Your task to perform on an android device: Open accessibility settings Image 0: 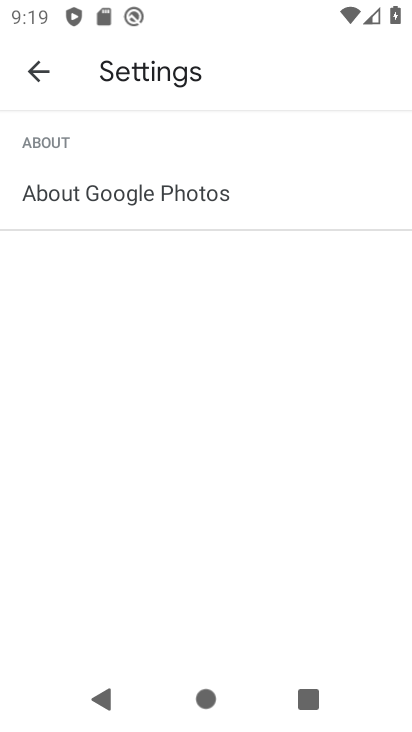
Step 0: press home button
Your task to perform on an android device: Open accessibility settings Image 1: 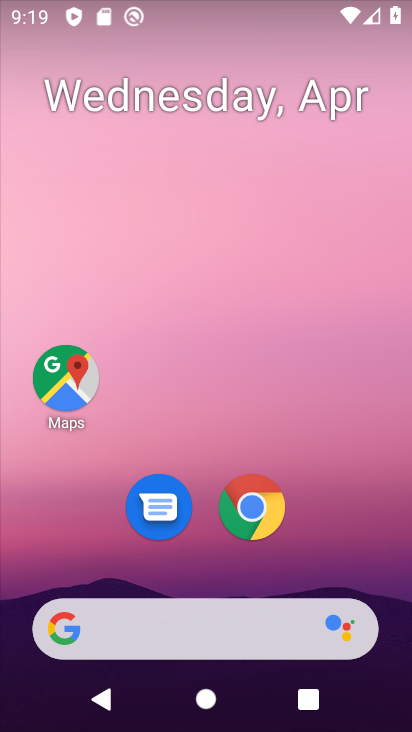
Step 1: drag from (314, 566) to (265, 136)
Your task to perform on an android device: Open accessibility settings Image 2: 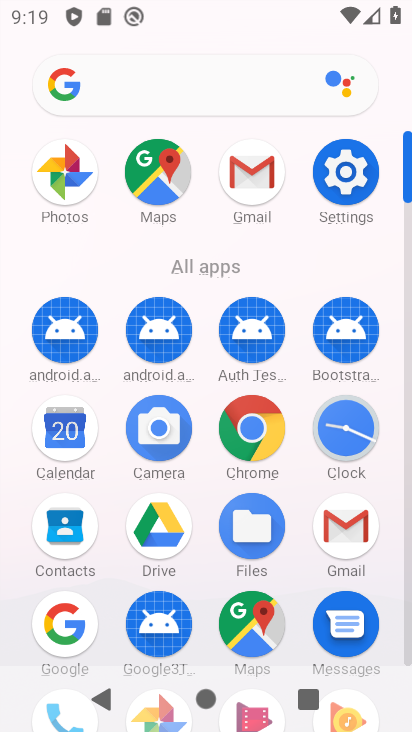
Step 2: click (337, 178)
Your task to perform on an android device: Open accessibility settings Image 3: 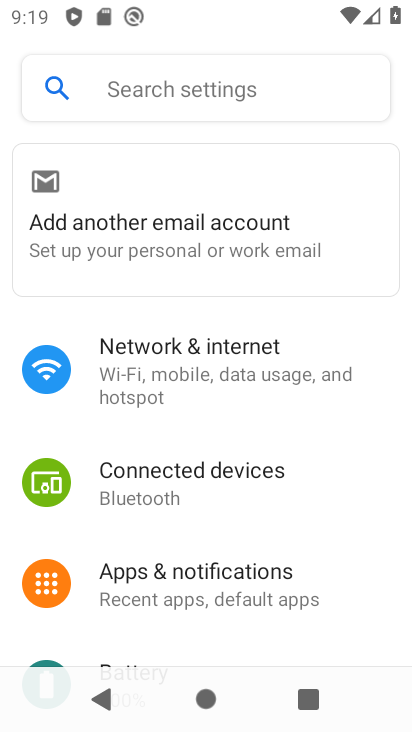
Step 3: drag from (236, 598) to (254, 245)
Your task to perform on an android device: Open accessibility settings Image 4: 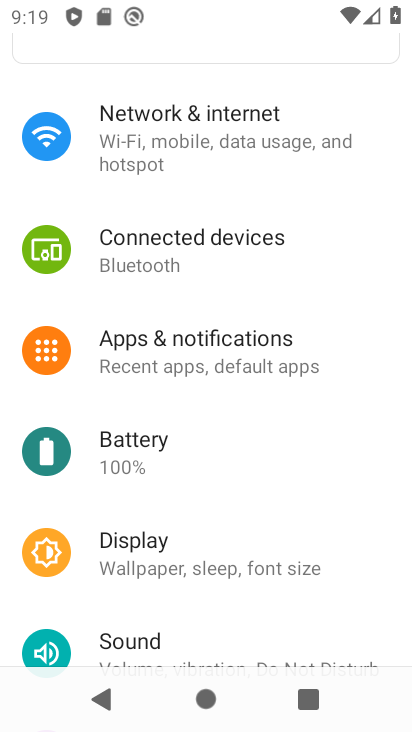
Step 4: drag from (214, 612) to (241, 116)
Your task to perform on an android device: Open accessibility settings Image 5: 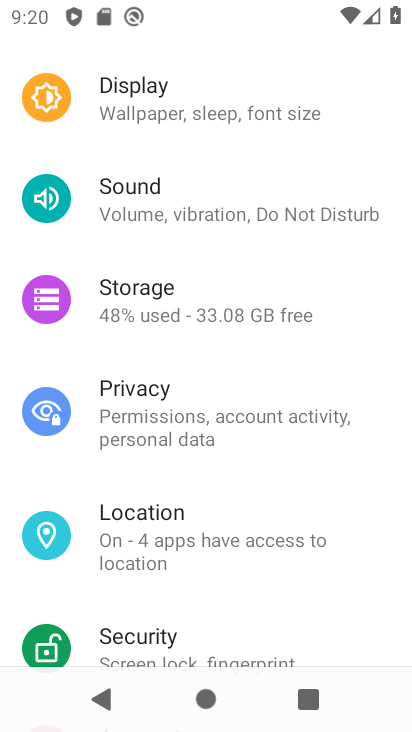
Step 5: drag from (223, 587) to (265, 196)
Your task to perform on an android device: Open accessibility settings Image 6: 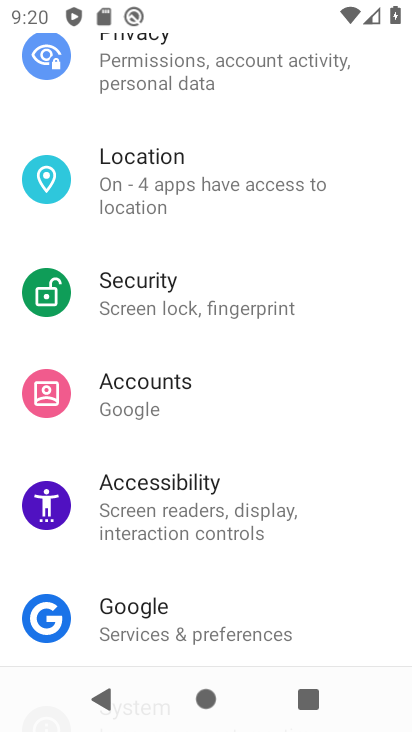
Step 6: click (190, 508)
Your task to perform on an android device: Open accessibility settings Image 7: 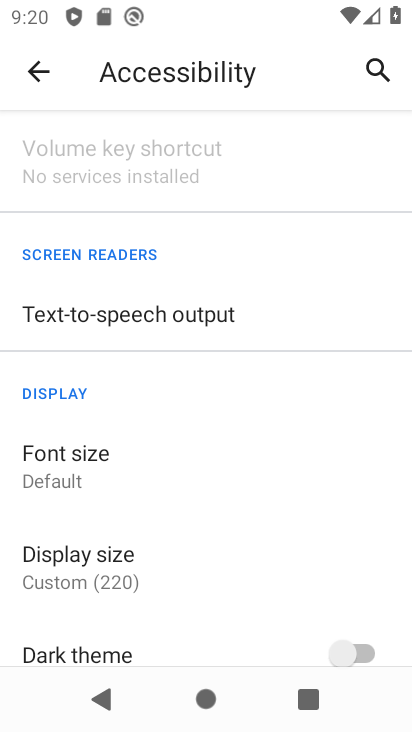
Step 7: task complete